Your task to perform on an android device: turn on wifi Image 0: 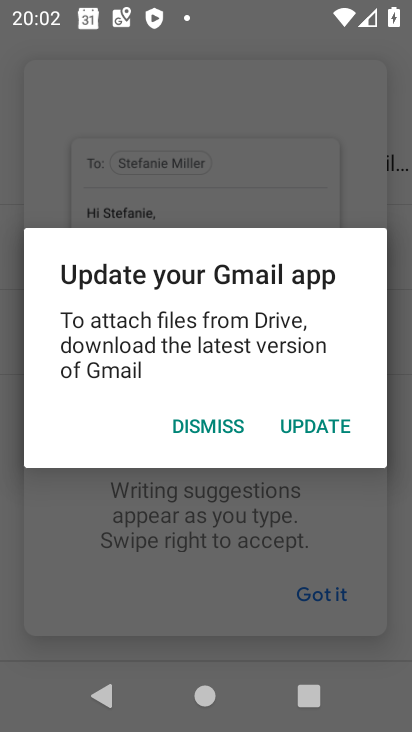
Step 0: press home button
Your task to perform on an android device: turn on wifi Image 1: 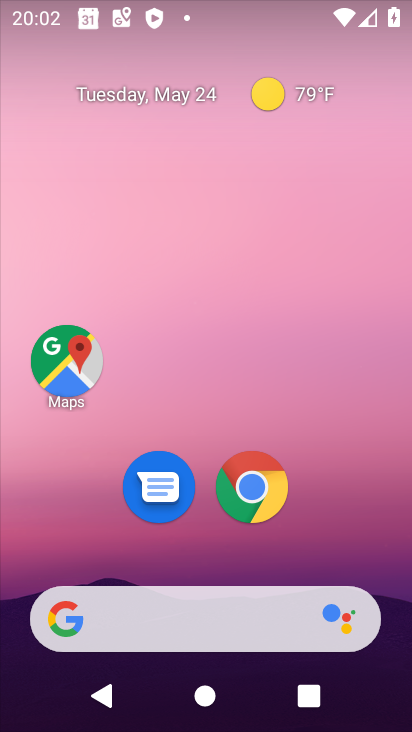
Step 1: drag from (137, 1) to (136, 341)
Your task to perform on an android device: turn on wifi Image 2: 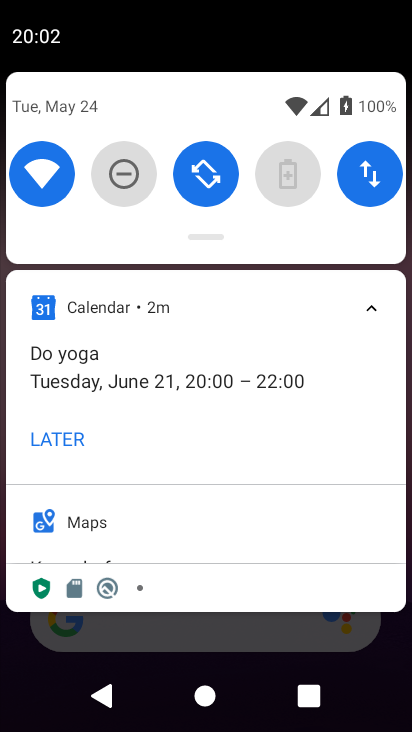
Step 2: click (48, 171)
Your task to perform on an android device: turn on wifi Image 3: 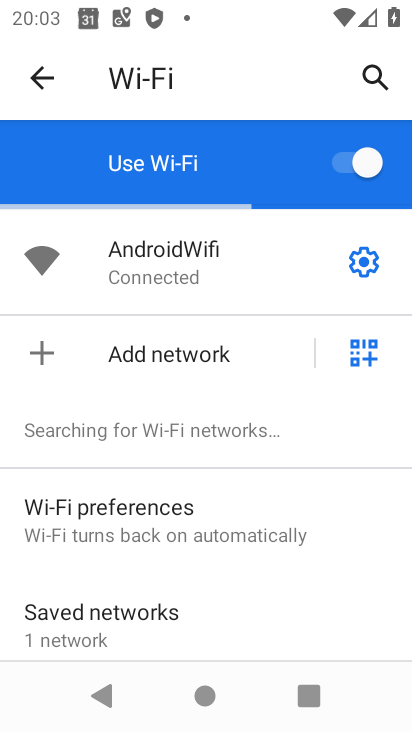
Step 3: task complete